Your task to perform on an android device: Search for pizza restaurants on Maps Image 0: 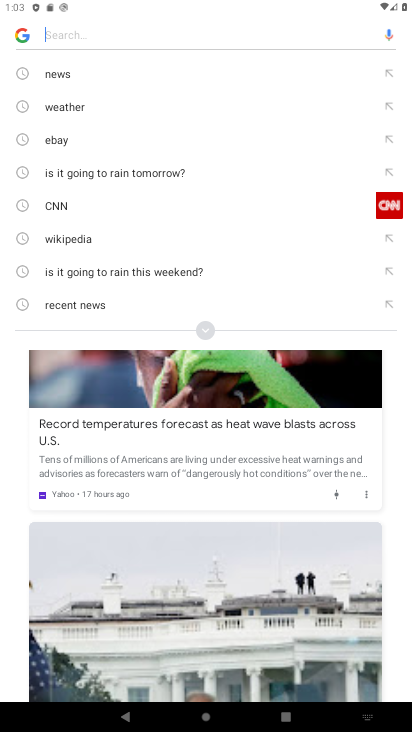
Step 0: press home button
Your task to perform on an android device: Search for pizza restaurants on Maps Image 1: 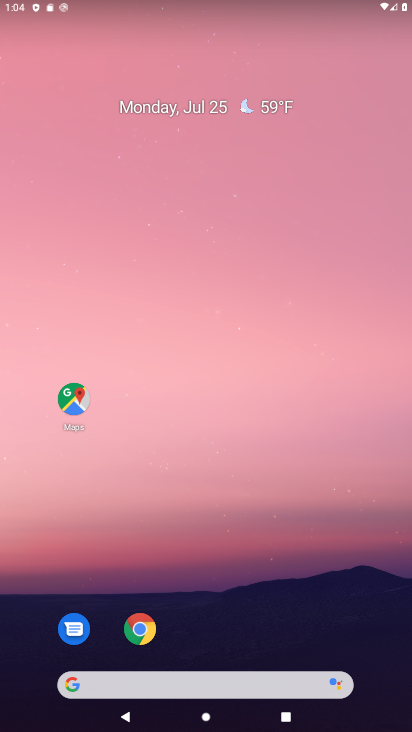
Step 1: click (80, 412)
Your task to perform on an android device: Search for pizza restaurants on Maps Image 2: 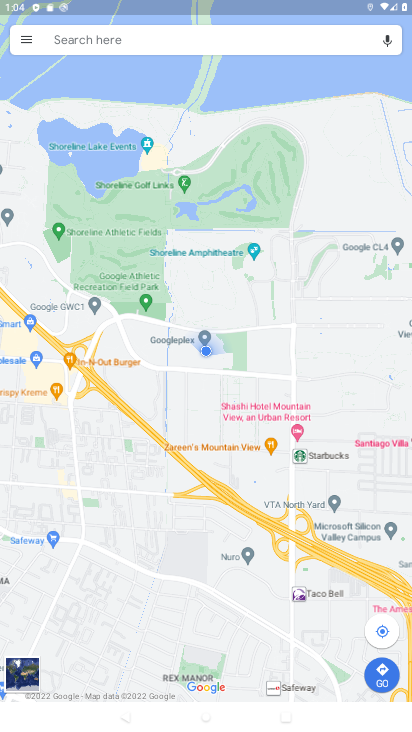
Step 2: click (177, 35)
Your task to perform on an android device: Search for pizza restaurants on Maps Image 3: 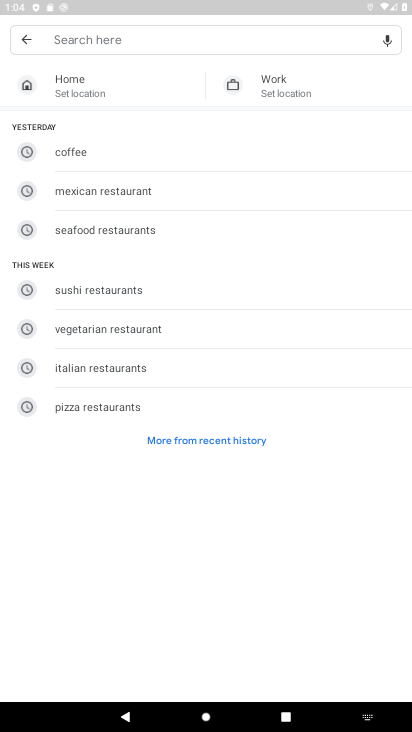
Step 3: click (129, 403)
Your task to perform on an android device: Search for pizza restaurants on Maps Image 4: 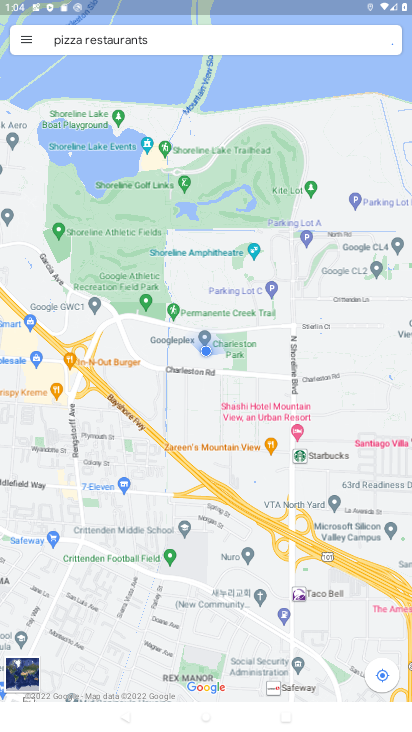
Step 4: task complete